Your task to perform on an android device: Go to accessibility settings Image 0: 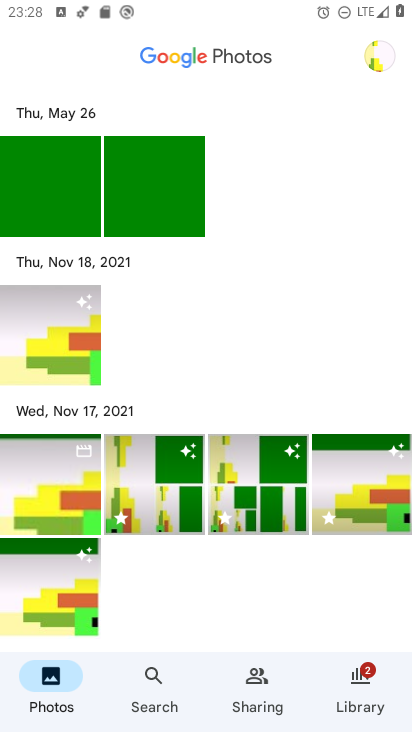
Step 0: press home button
Your task to perform on an android device: Go to accessibility settings Image 1: 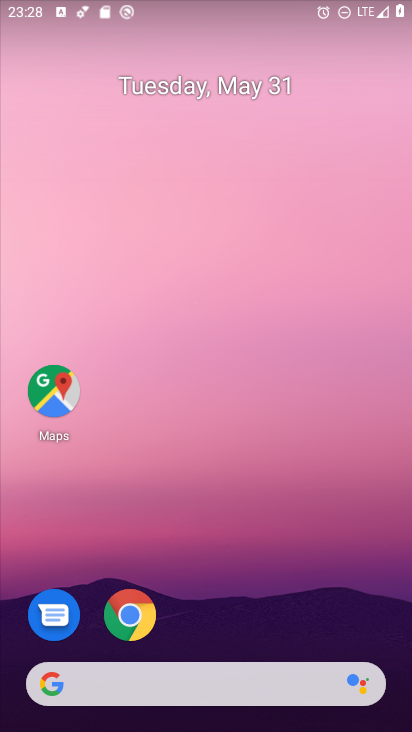
Step 1: drag from (382, 627) to (293, 73)
Your task to perform on an android device: Go to accessibility settings Image 2: 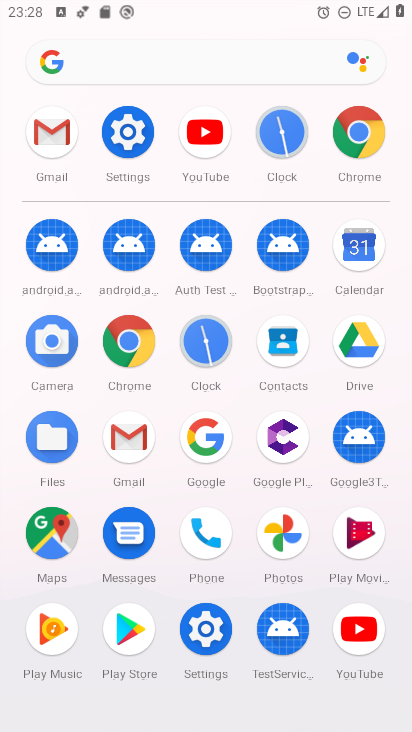
Step 2: click (204, 629)
Your task to perform on an android device: Go to accessibility settings Image 3: 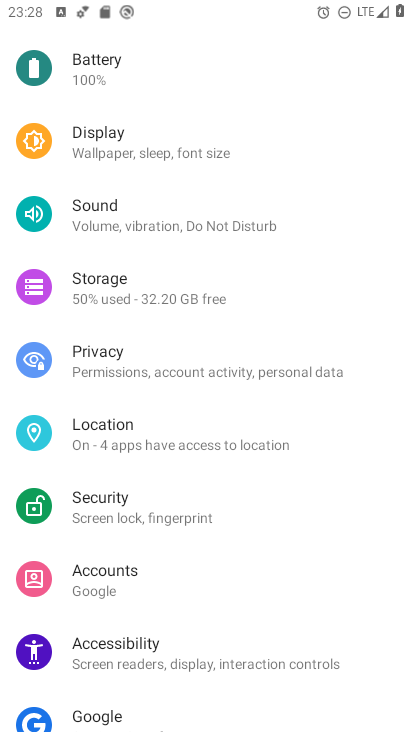
Step 3: click (143, 647)
Your task to perform on an android device: Go to accessibility settings Image 4: 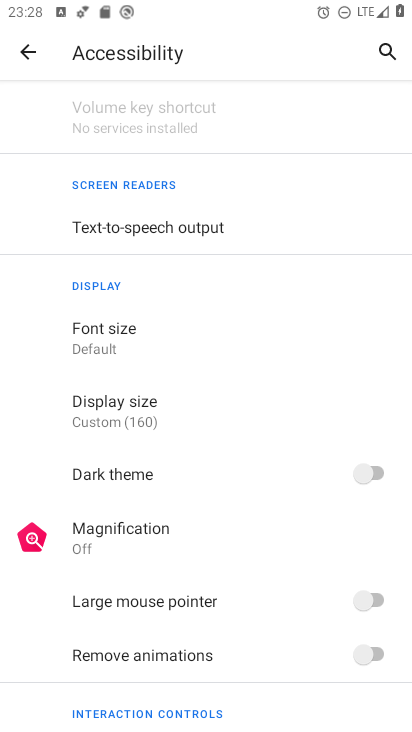
Step 4: task complete